Your task to perform on an android device: Open Wikipedia Image 0: 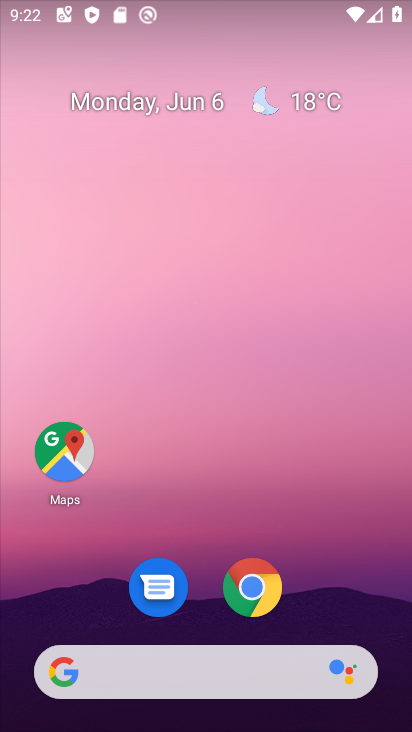
Step 0: click (254, 590)
Your task to perform on an android device: Open Wikipedia Image 1: 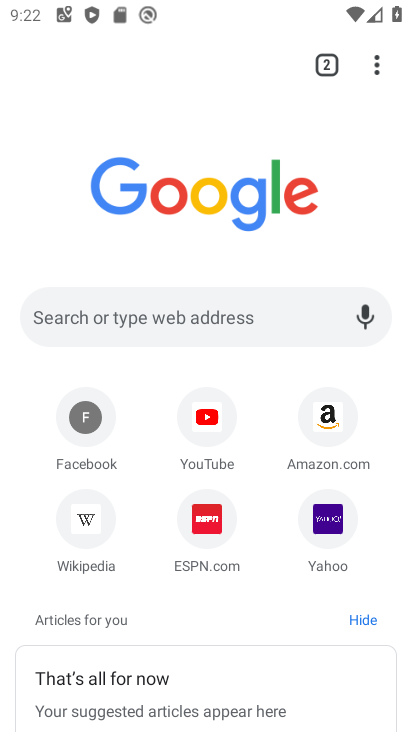
Step 1: click (103, 518)
Your task to perform on an android device: Open Wikipedia Image 2: 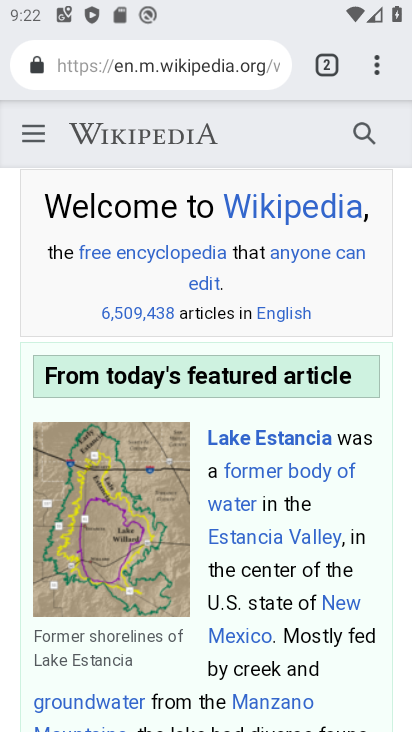
Step 2: task complete